Your task to perform on an android device: Open Reddit.com Image 0: 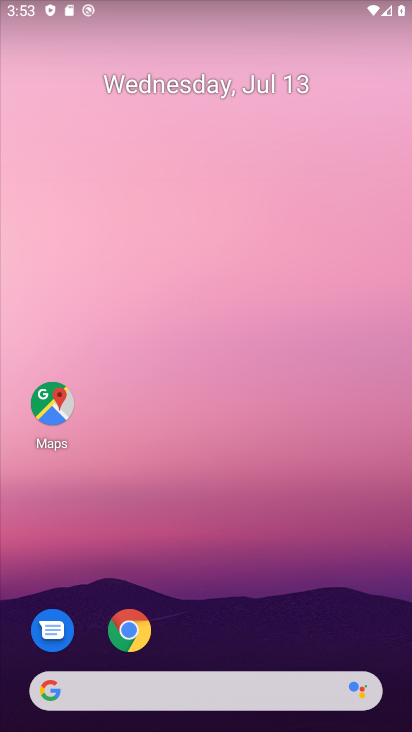
Step 0: press home button
Your task to perform on an android device: Open Reddit.com Image 1: 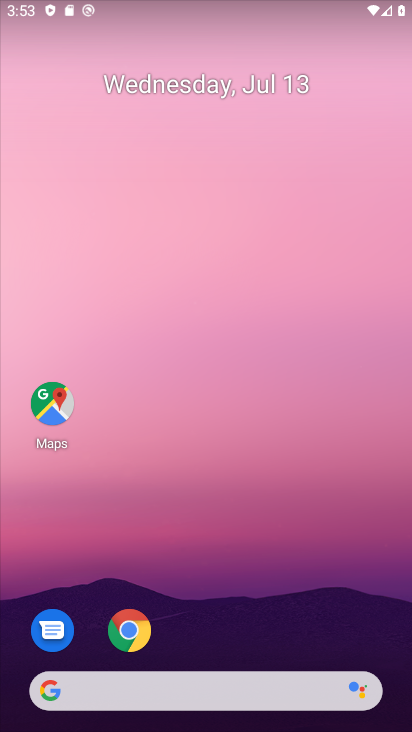
Step 1: click (45, 695)
Your task to perform on an android device: Open Reddit.com Image 2: 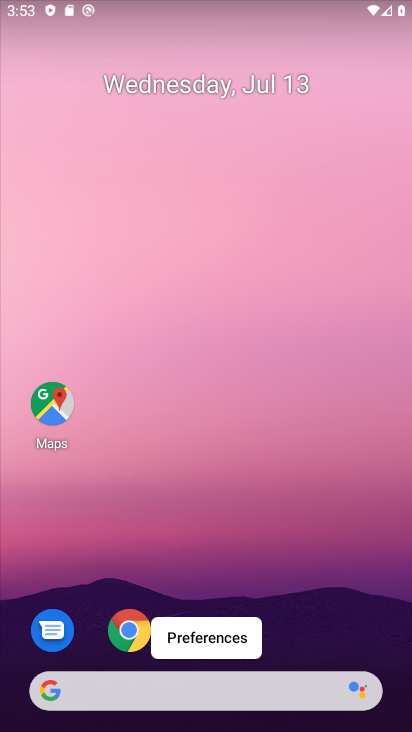
Step 2: click (45, 695)
Your task to perform on an android device: Open Reddit.com Image 3: 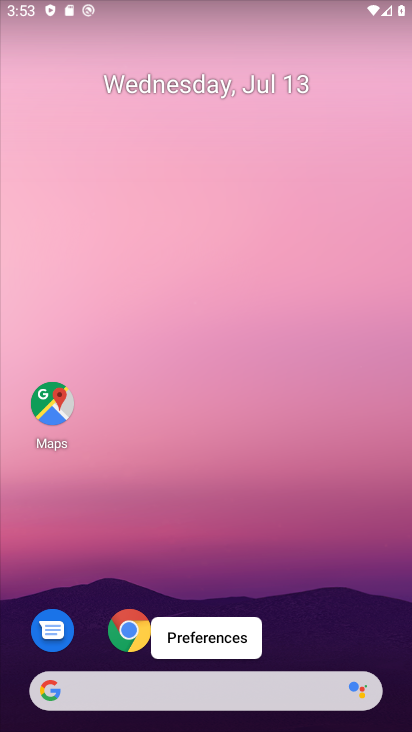
Step 3: click (61, 692)
Your task to perform on an android device: Open Reddit.com Image 4: 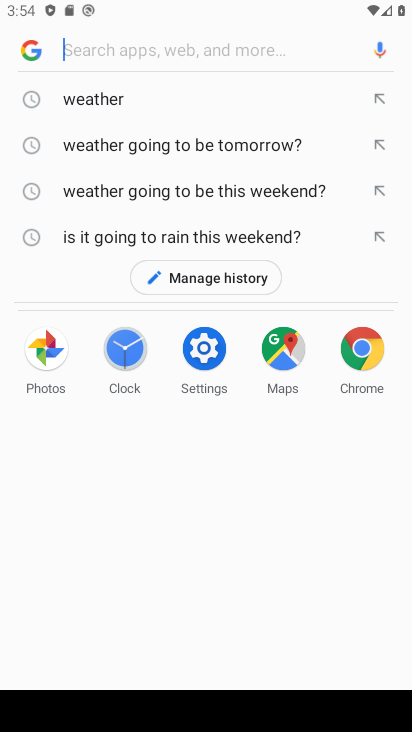
Step 4: type "Reddit.com"
Your task to perform on an android device: Open Reddit.com Image 5: 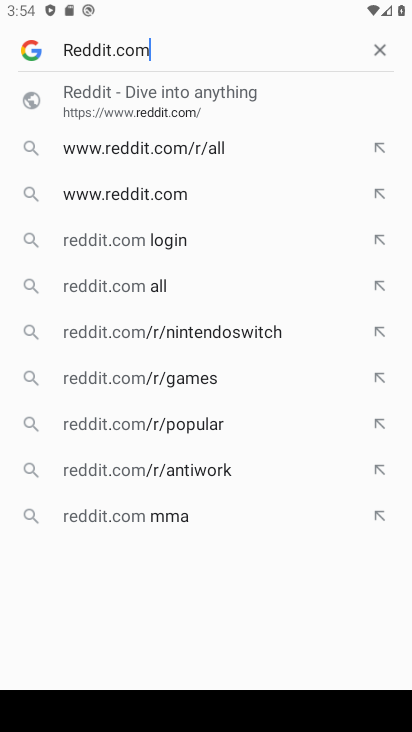
Step 5: press enter
Your task to perform on an android device: Open Reddit.com Image 6: 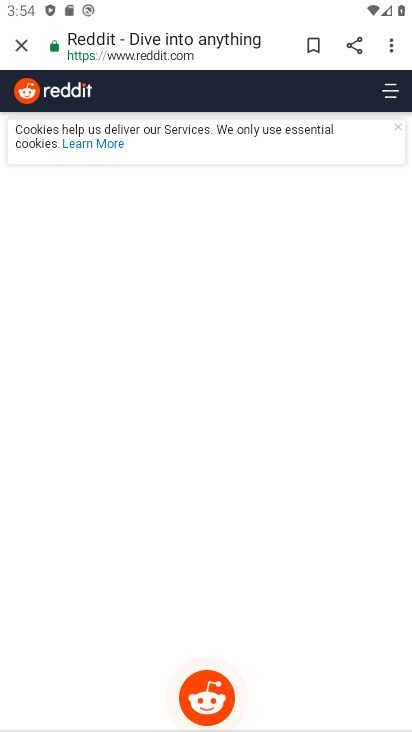
Step 6: task complete